Your task to perform on an android device: turn on sleep mode Image 0: 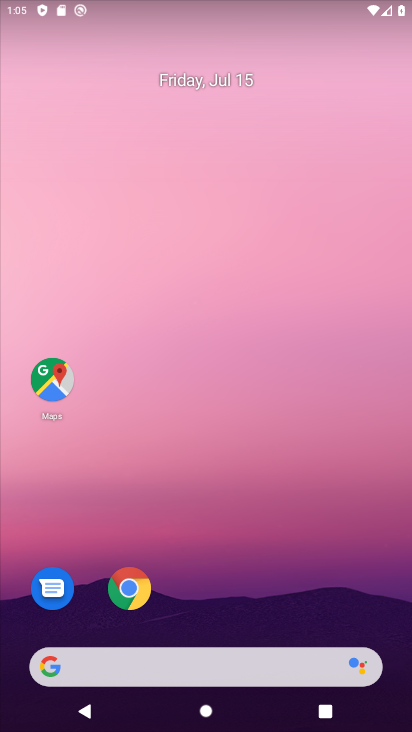
Step 0: drag from (270, 582) to (275, 29)
Your task to perform on an android device: turn on sleep mode Image 1: 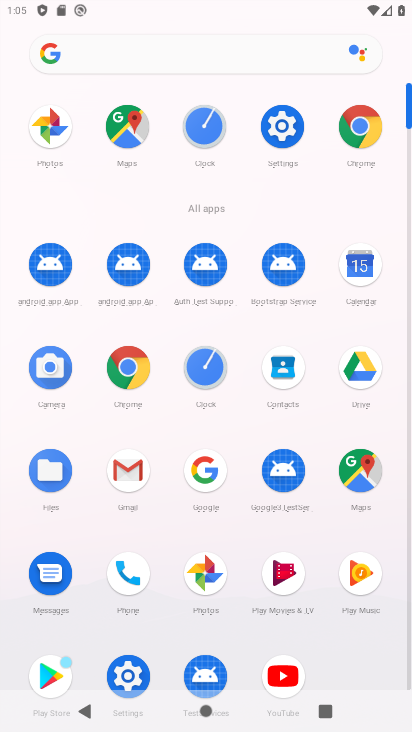
Step 1: click (278, 139)
Your task to perform on an android device: turn on sleep mode Image 2: 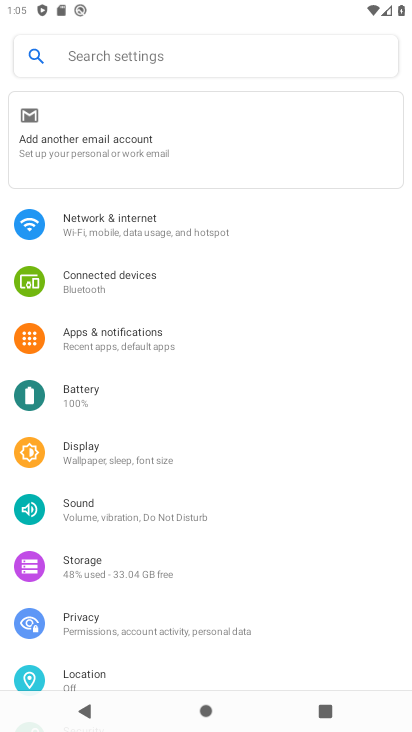
Step 2: click (122, 446)
Your task to perform on an android device: turn on sleep mode Image 3: 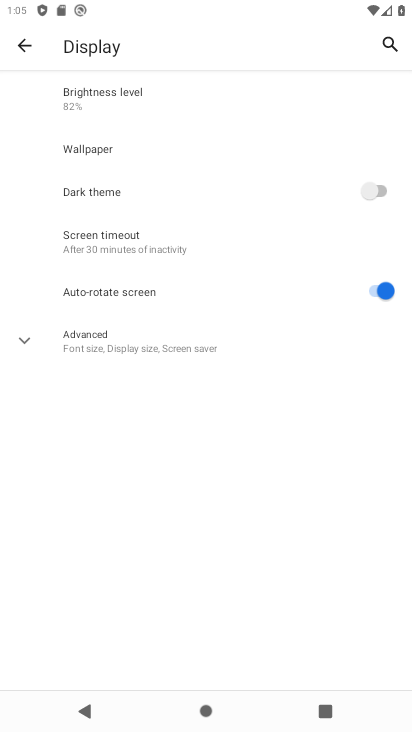
Step 3: click (176, 348)
Your task to perform on an android device: turn on sleep mode Image 4: 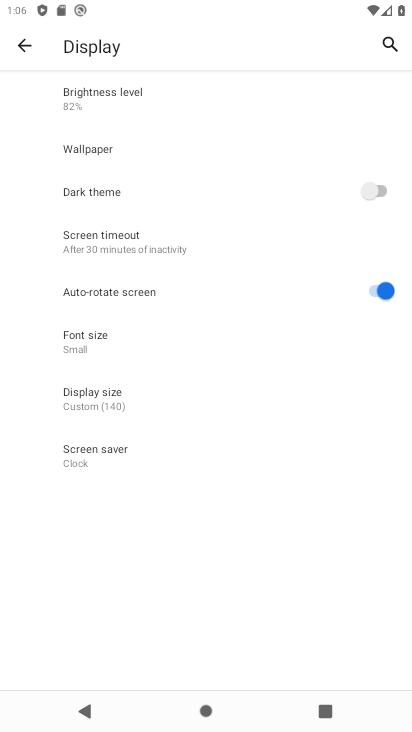
Step 4: task complete